Your task to perform on an android device: What's on my calendar today? Image 0: 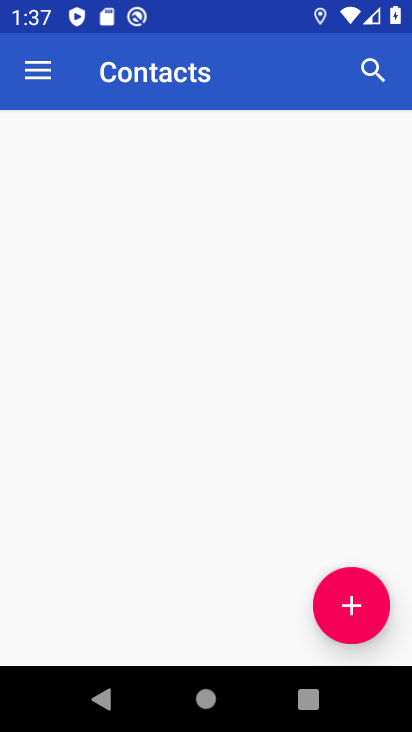
Step 0: drag from (131, 616) to (179, 513)
Your task to perform on an android device: What's on my calendar today? Image 1: 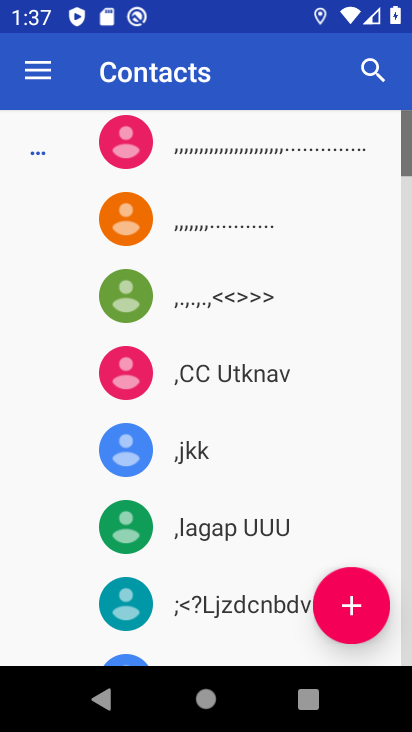
Step 1: press home button
Your task to perform on an android device: What's on my calendar today? Image 2: 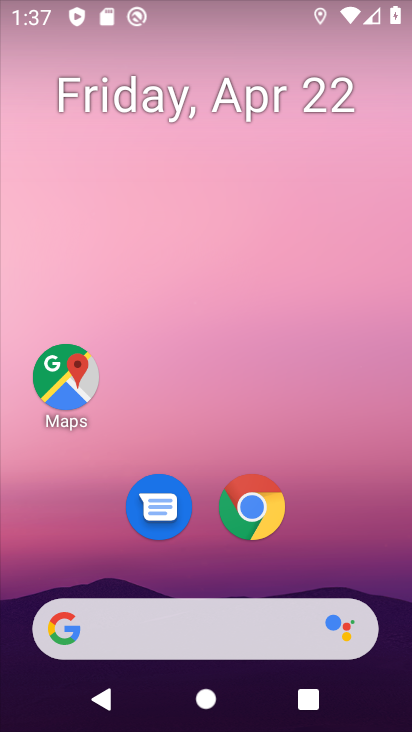
Step 2: drag from (142, 638) to (236, 151)
Your task to perform on an android device: What's on my calendar today? Image 3: 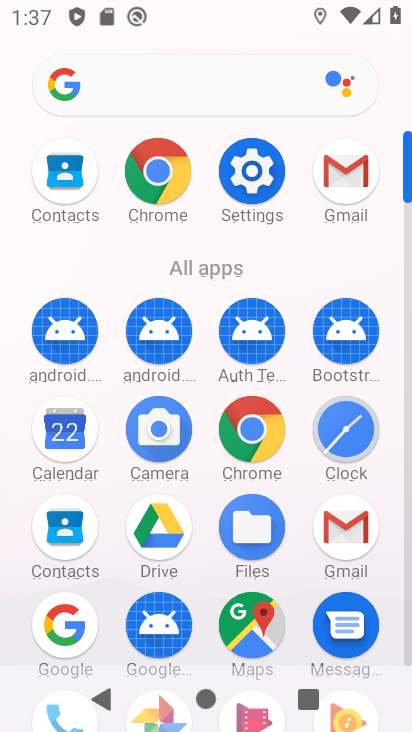
Step 3: click (61, 431)
Your task to perform on an android device: What's on my calendar today? Image 4: 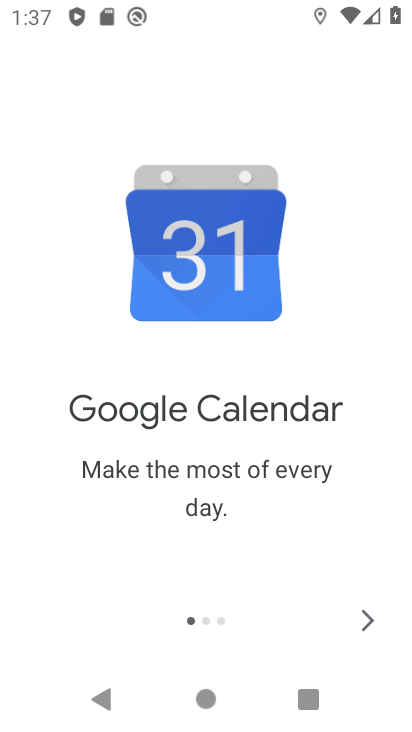
Step 4: click (368, 617)
Your task to perform on an android device: What's on my calendar today? Image 5: 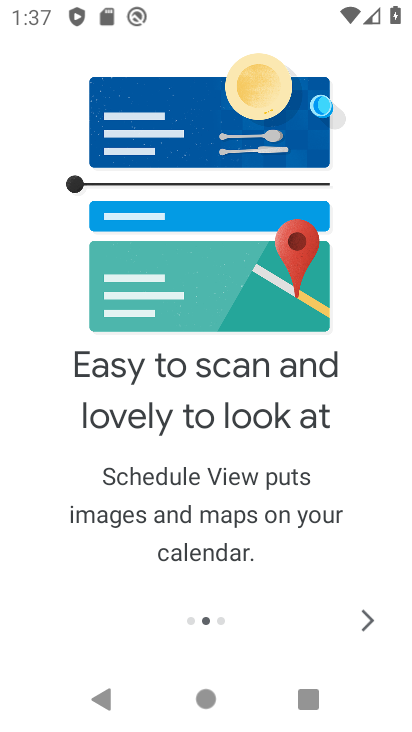
Step 5: click (368, 617)
Your task to perform on an android device: What's on my calendar today? Image 6: 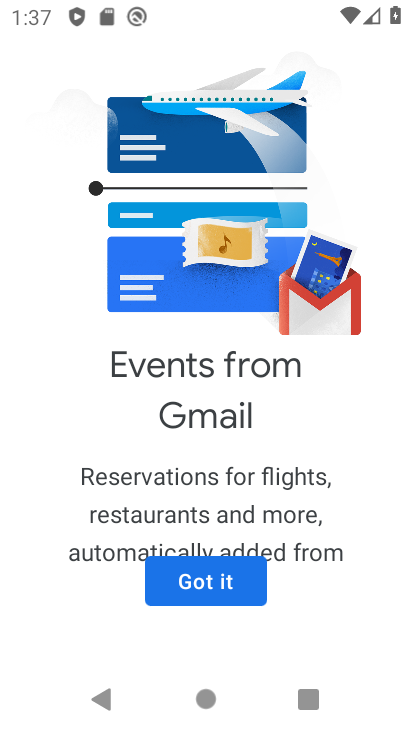
Step 6: click (211, 588)
Your task to perform on an android device: What's on my calendar today? Image 7: 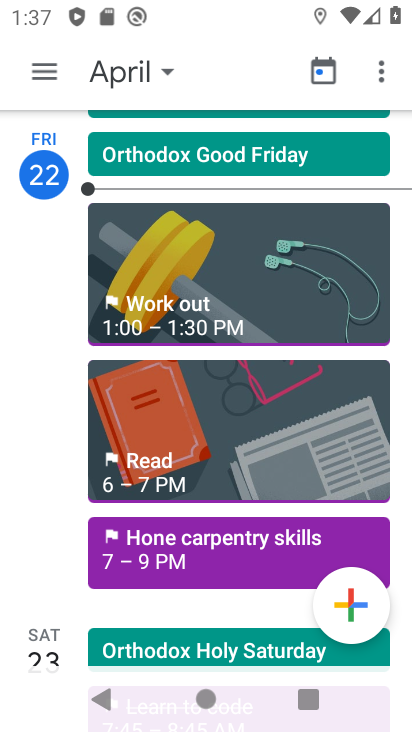
Step 7: click (118, 77)
Your task to perform on an android device: What's on my calendar today? Image 8: 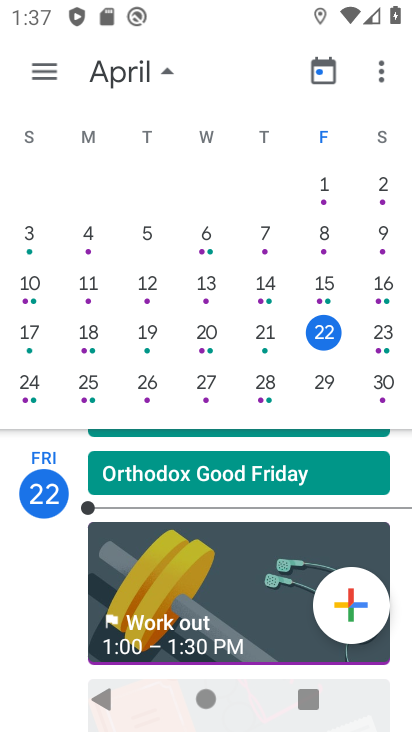
Step 8: click (38, 63)
Your task to perform on an android device: What's on my calendar today? Image 9: 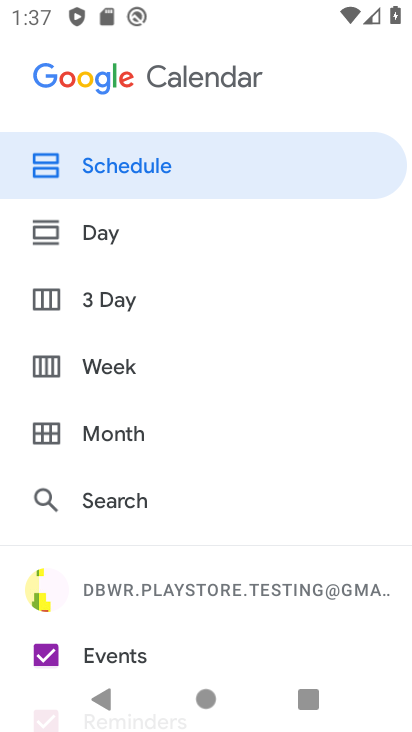
Step 9: click (114, 168)
Your task to perform on an android device: What's on my calendar today? Image 10: 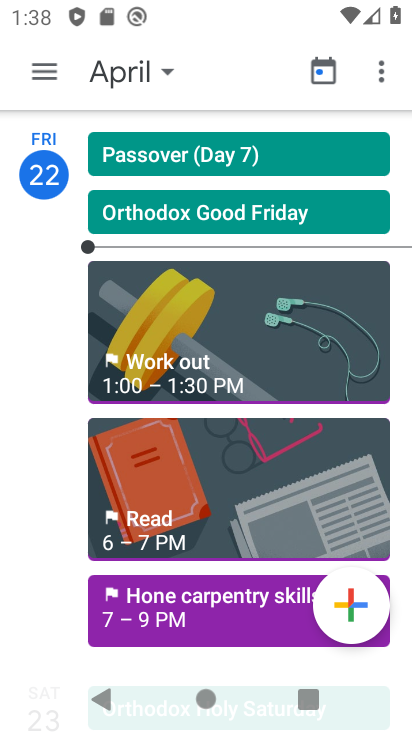
Step 10: drag from (127, 559) to (277, 247)
Your task to perform on an android device: What's on my calendar today? Image 11: 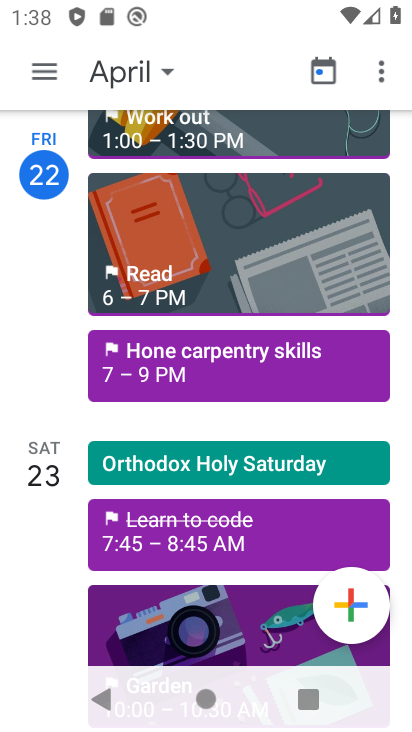
Step 11: click (199, 352)
Your task to perform on an android device: What's on my calendar today? Image 12: 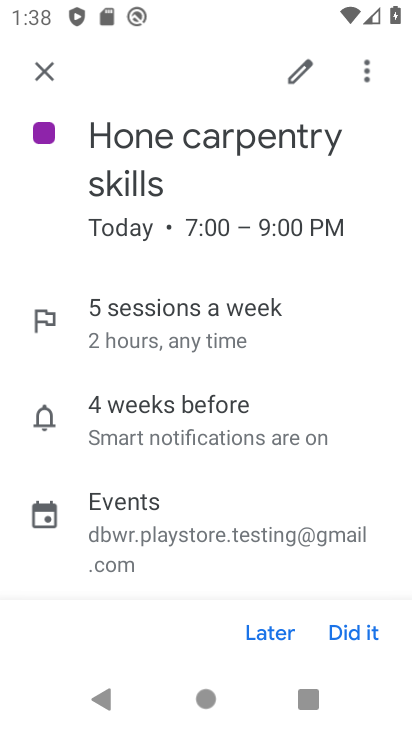
Step 12: task complete